Your task to perform on an android device: Show me recent news Image 0: 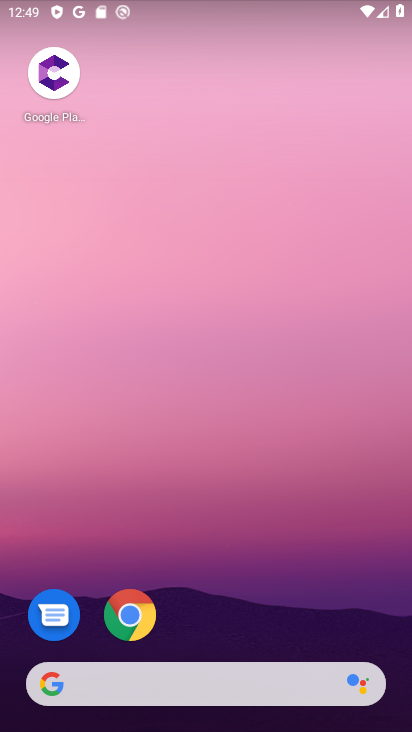
Step 0: click (195, 705)
Your task to perform on an android device: Show me recent news Image 1: 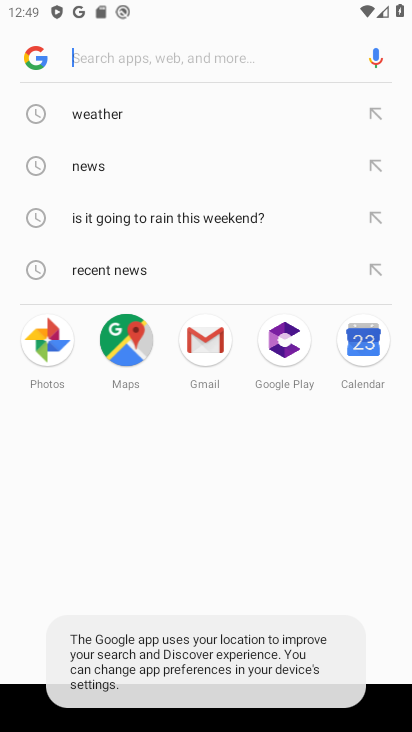
Step 1: click (75, 164)
Your task to perform on an android device: Show me recent news Image 2: 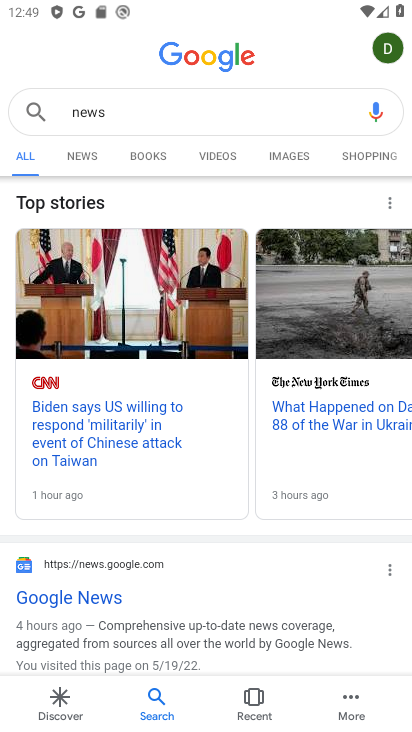
Step 2: click (68, 158)
Your task to perform on an android device: Show me recent news Image 3: 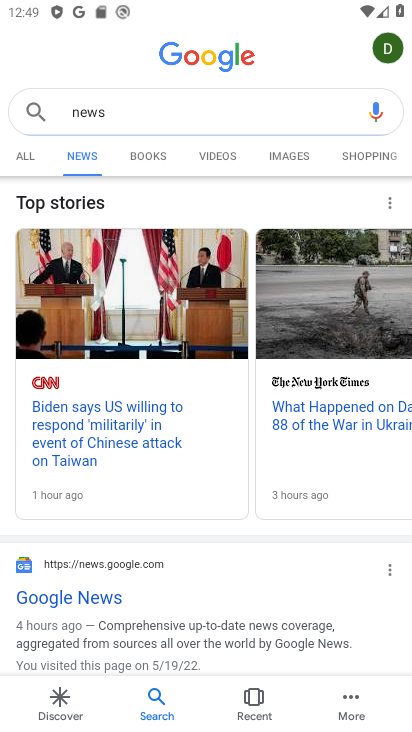
Step 3: task complete